Your task to perform on an android device: Open network settings Image 0: 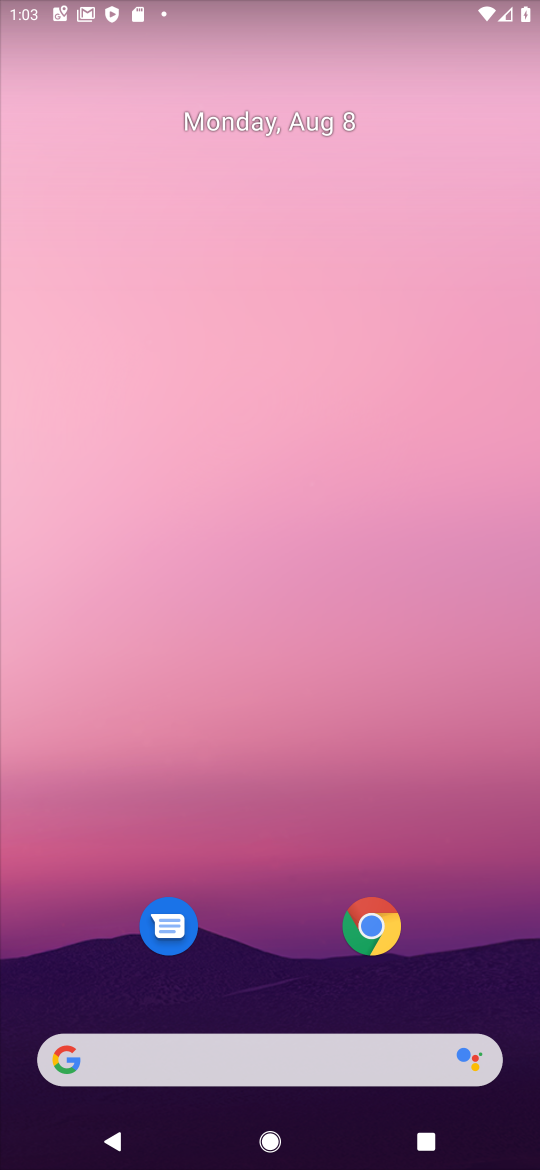
Step 0: drag from (240, 1011) to (359, 312)
Your task to perform on an android device: Open network settings Image 1: 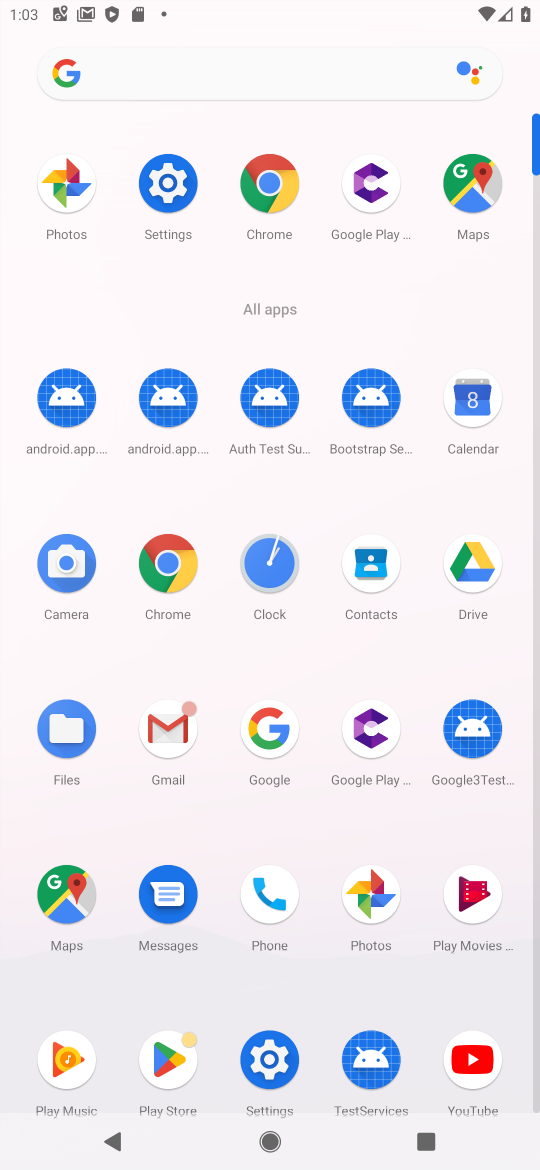
Step 1: click (152, 167)
Your task to perform on an android device: Open network settings Image 2: 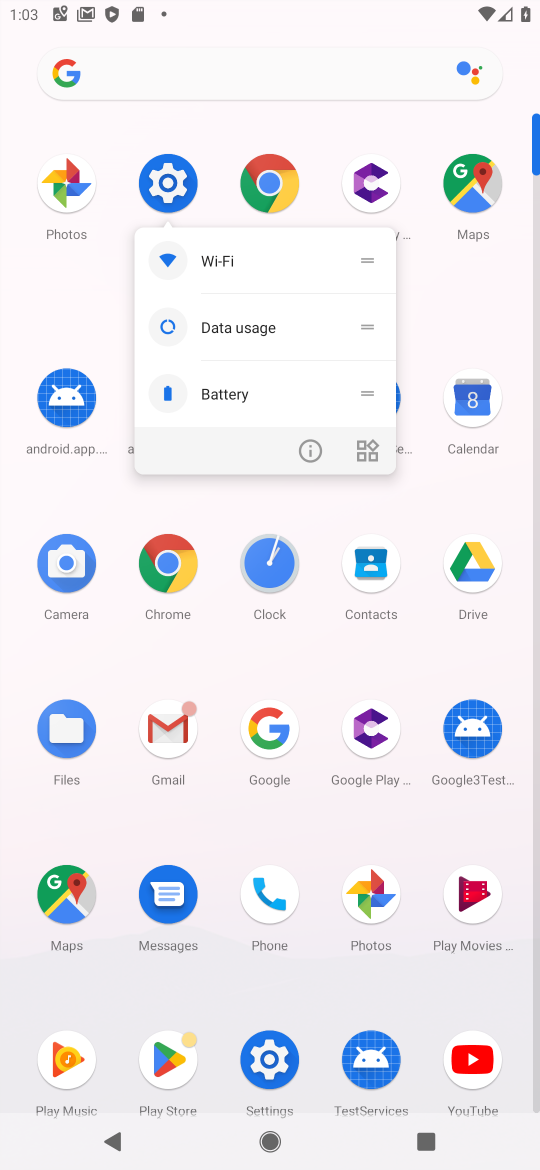
Step 2: click (161, 176)
Your task to perform on an android device: Open network settings Image 3: 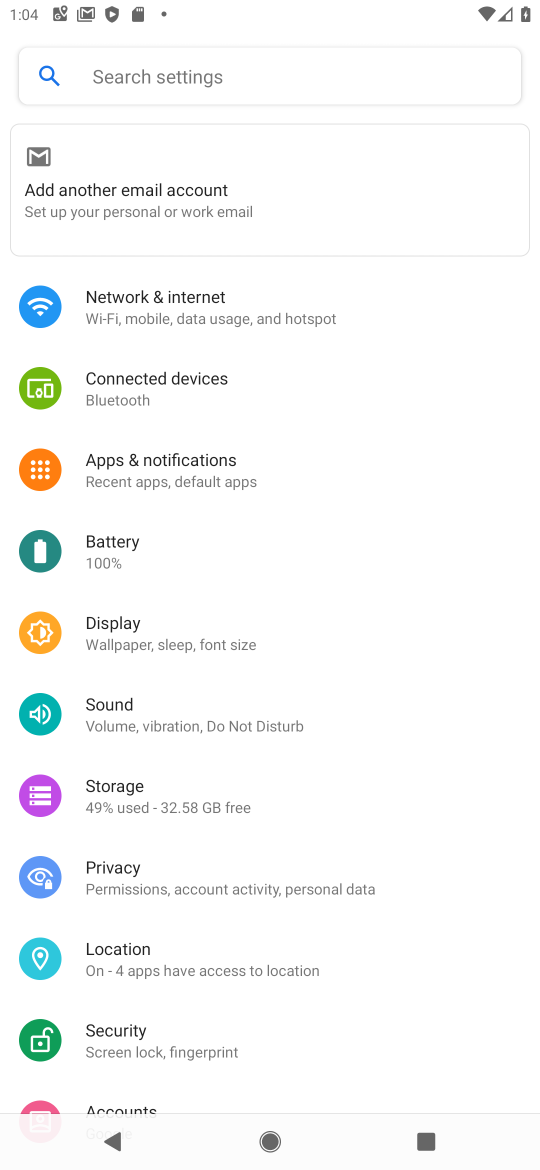
Step 3: click (122, 280)
Your task to perform on an android device: Open network settings Image 4: 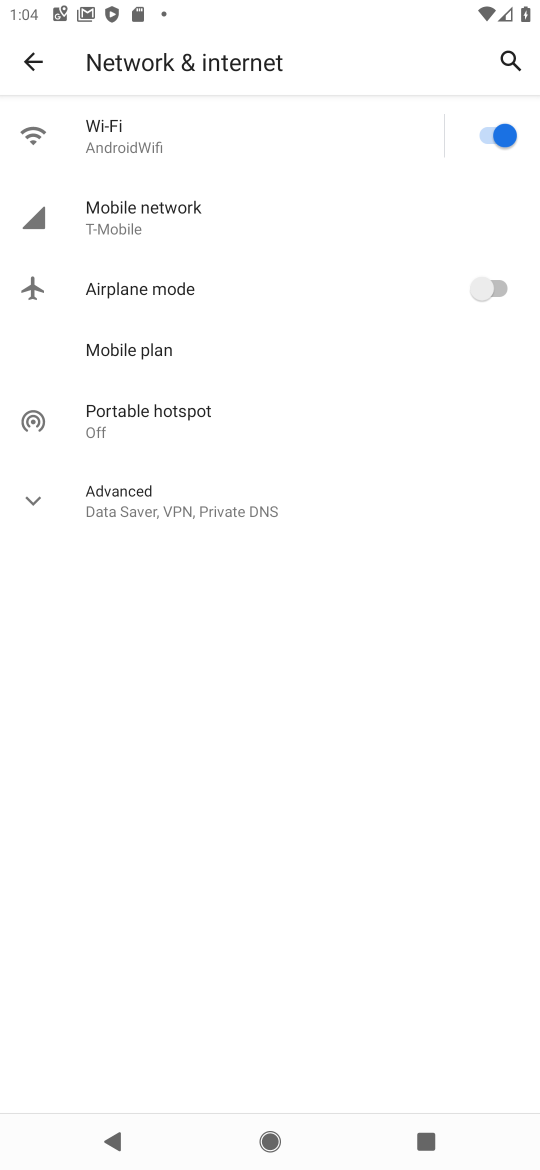
Step 4: task complete